Your task to perform on an android device: clear all cookies in the chrome app Image 0: 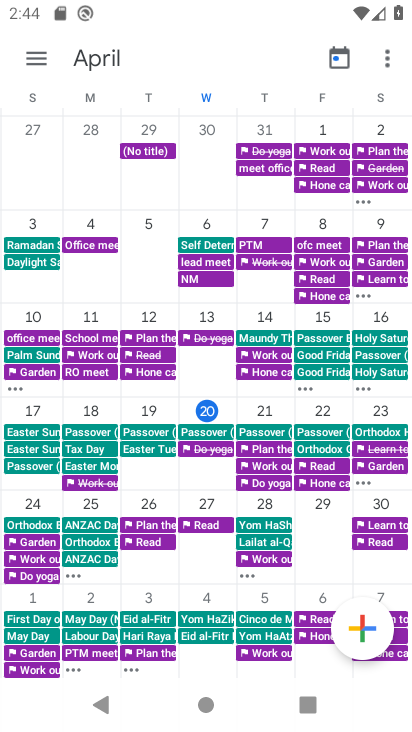
Step 0: drag from (285, 427) to (290, 174)
Your task to perform on an android device: clear all cookies in the chrome app Image 1: 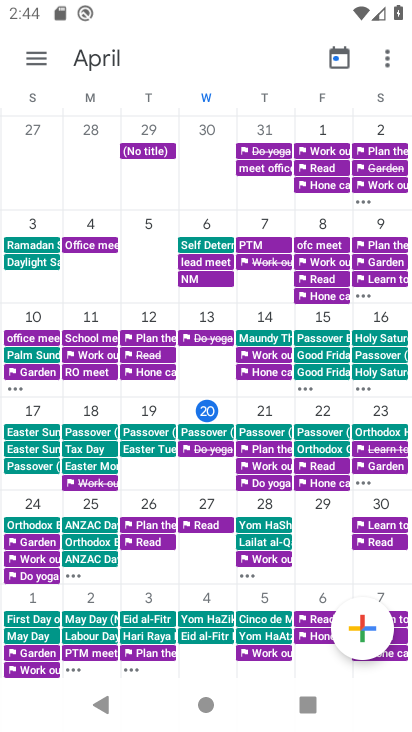
Step 1: press home button
Your task to perform on an android device: clear all cookies in the chrome app Image 2: 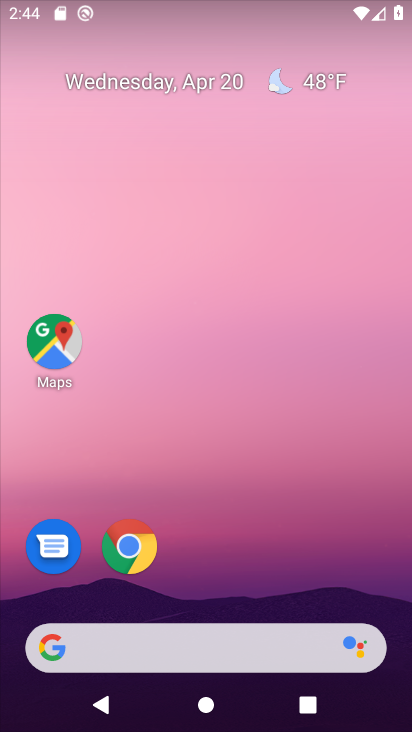
Step 2: drag from (274, 520) to (266, 302)
Your task to perform on an android device: clear all cookies in the chrome app Image 3: 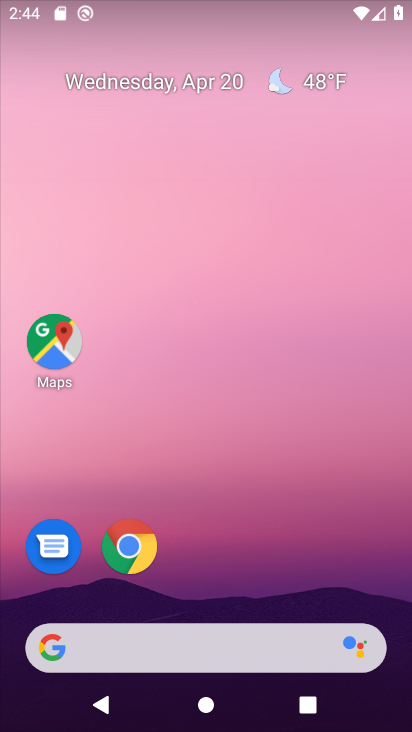
Step 3: drag from (275, 573) to (257, 208)
Your task to perform on an android device: clear all cookies in the chrome app Image 4: 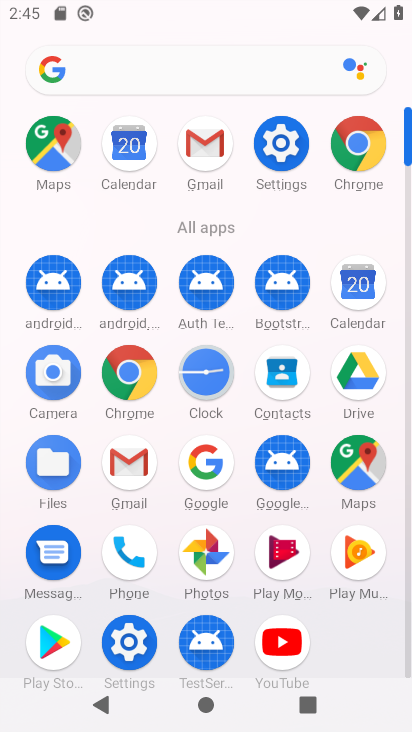
Step 4: click (361, 123)
Your task to perform on an android device: clear all cookies in the chrome app Image 5: 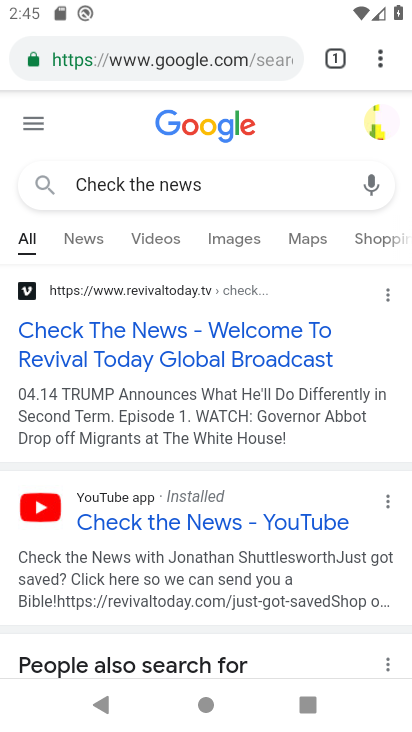
Step 5: click (380, 59)
Your task to perform on an android device: clear all cookies in the chrome app Image 6: 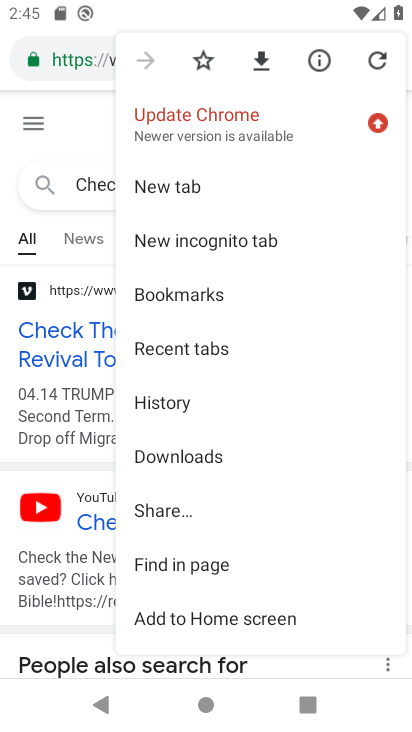
Step 6: drag from (288, 586) to (307, 217)
Your task to perform on an android device: clear all cookies in the chrome app Image 7: 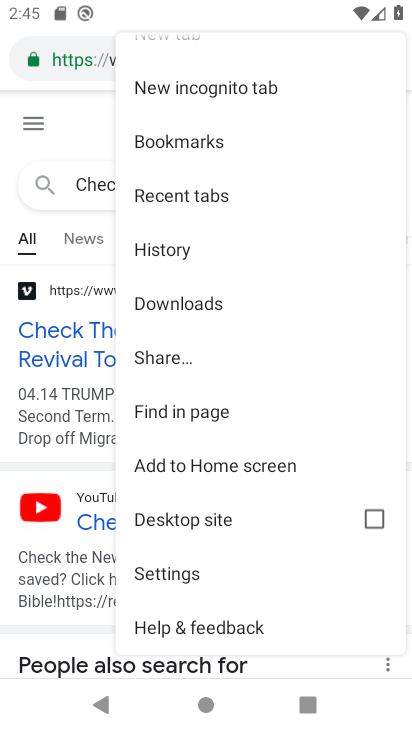
Step 7: click (255, 570)
Your task to perform on an android device: clear all cookies in the chrome app Image 8: 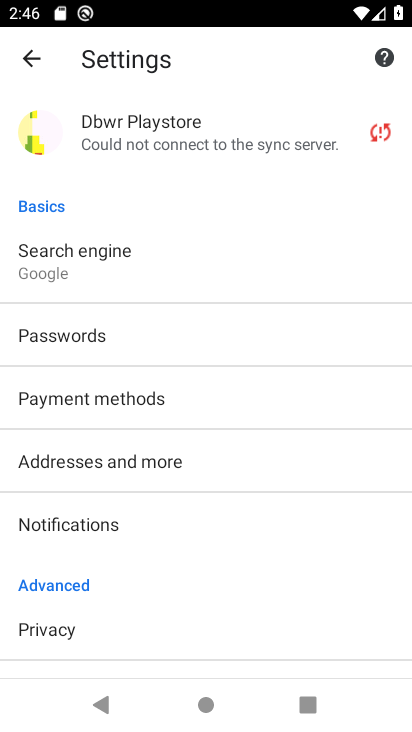
Step 8: drag from (284, 574) to (299, 251)
Your task to perform on an android device: clear all cookies in the chrome app Image 9: 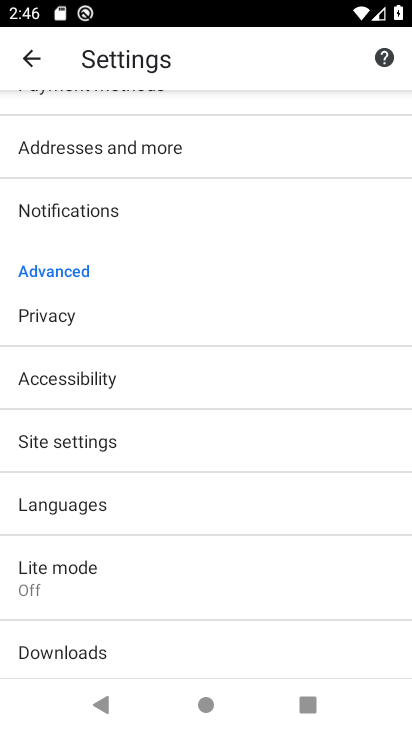
Step 9: click (140, 299)
Your task to perform on an android device: clear all cookies in the chrome app Image 10: 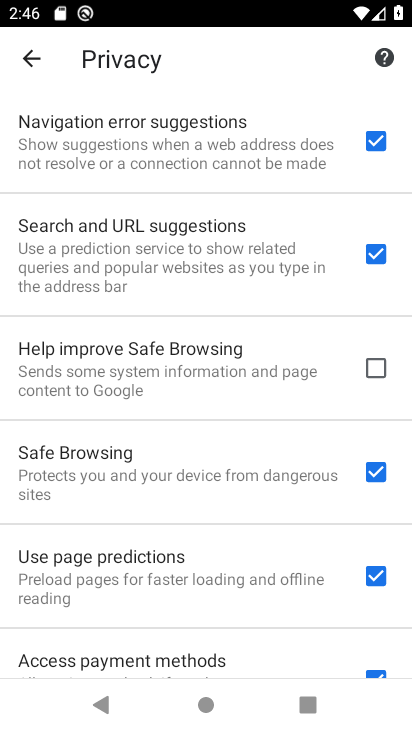
Step 10: drag from (183, 571) to (290, 157)
Your task to perform on an android device: clear all cookies in the chrome app Image 11: 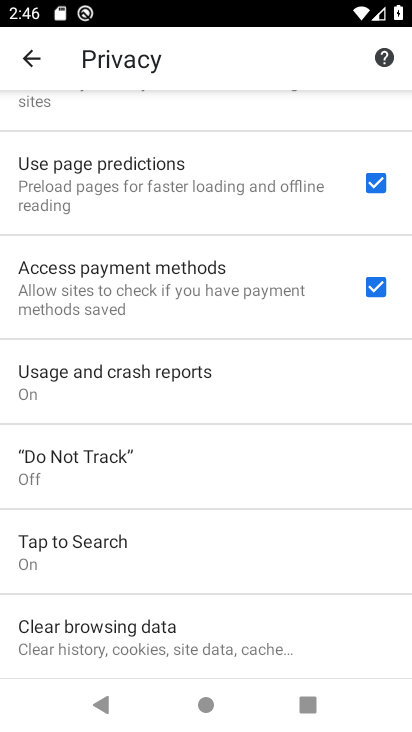
Step 11: drag from (187, 568) to (203, 255)
Your task to perform on an android device: clear all cookies in the chrome app Image 12: 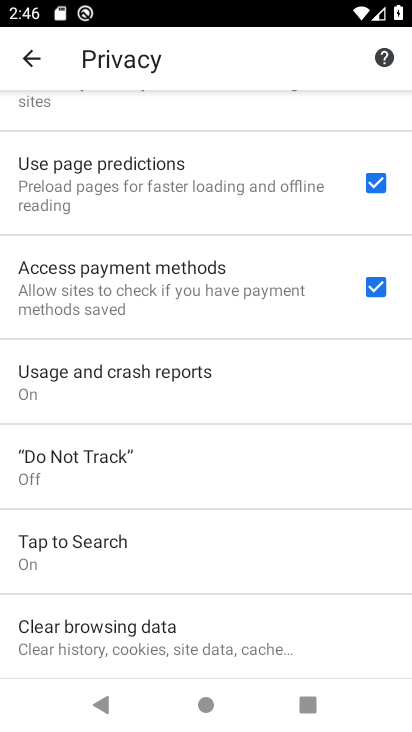
Step 12: click (153, 634)
Your task to perform on an android device: clear all cookies in the chrome app Image 13: 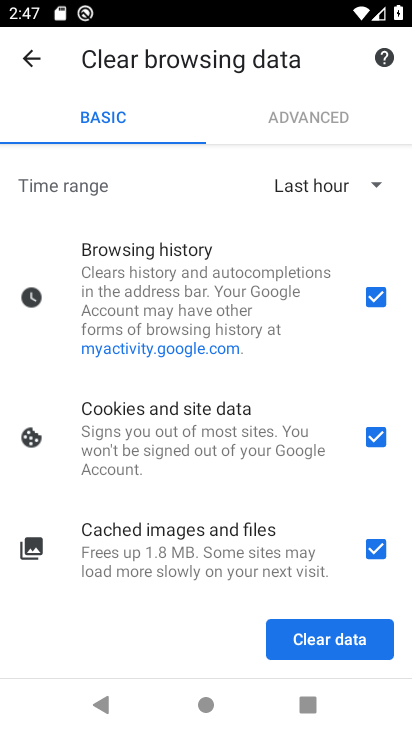
Step 13: click (358, 302)
Your task to perform on an android device: clear all cookies in the chrome app Image 14: 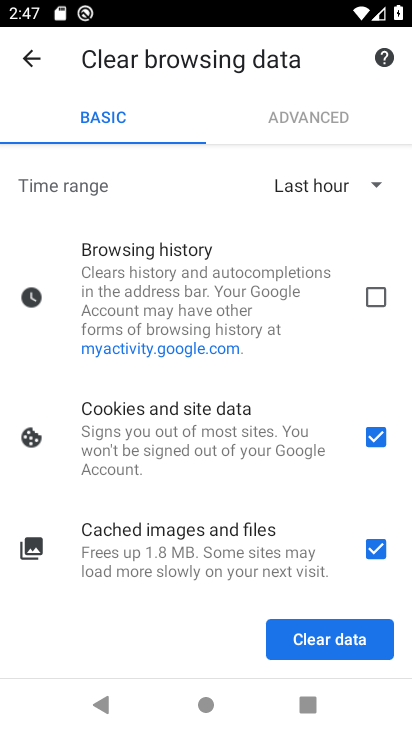
Step 14: click (370, 549)
Your task to perform on an android device: clear all cookies in the chrome app Image 15: 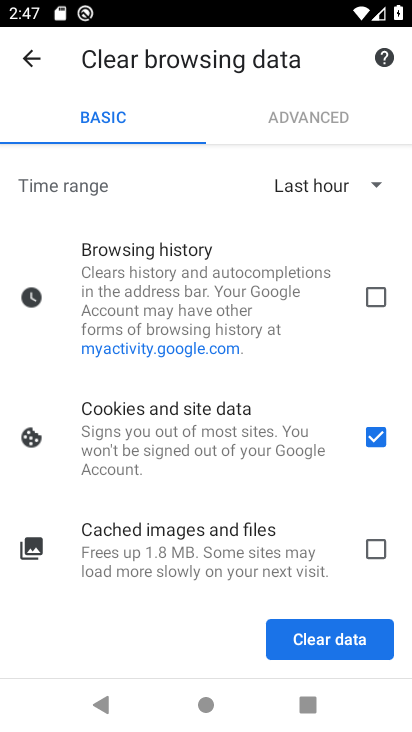
Step 15: click (367, 551)
Your task to perform on an android device: clear all cookies in the chrome app Image 16: 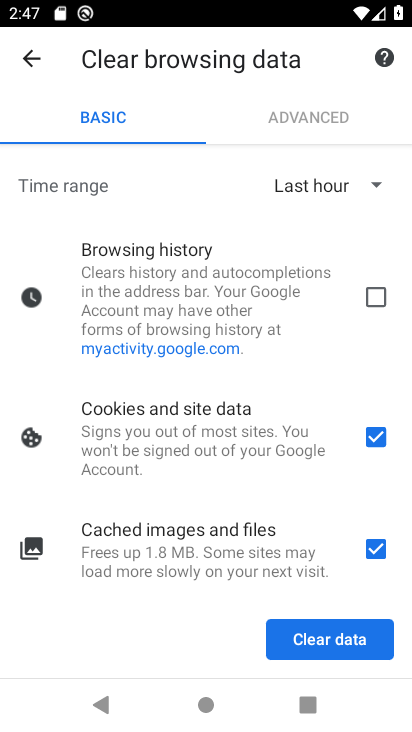
Step 16: click (321, 620)
Your task to perform on an android device: clear all cookies in the chrome app Image 17: 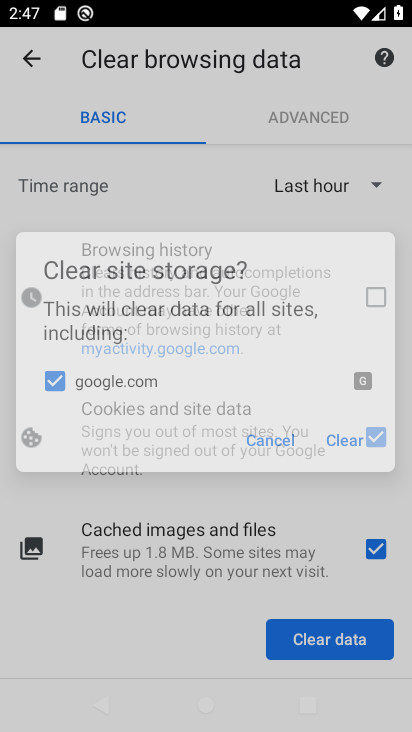
Step 17: click (315, 635)
Your task to perform on an android device: clear all cookies in the chrome app Image 18: 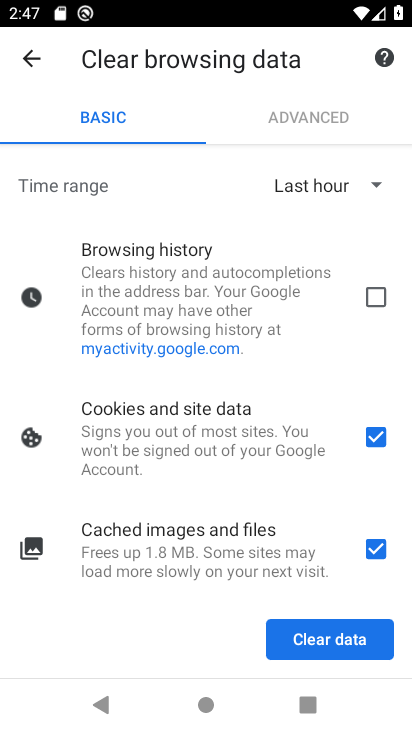
Step 18: click (353, 435)
Your task to perform on an android device: clear all cookies in the chrome app Image 19: 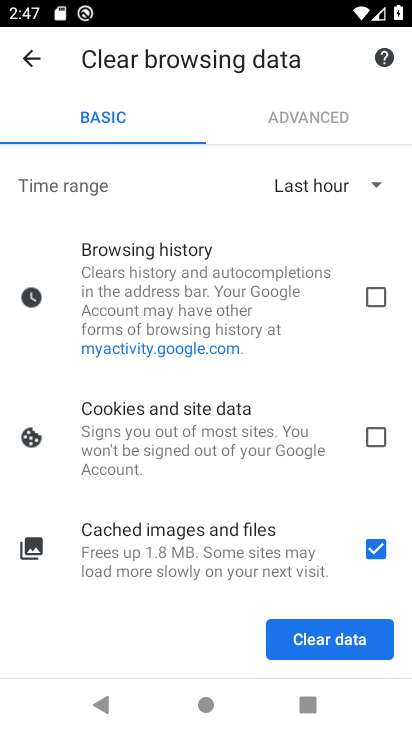
Step 19: click (354, 433)
Your task to perform on an android device: clear all cookies in the chrome app Image 20: 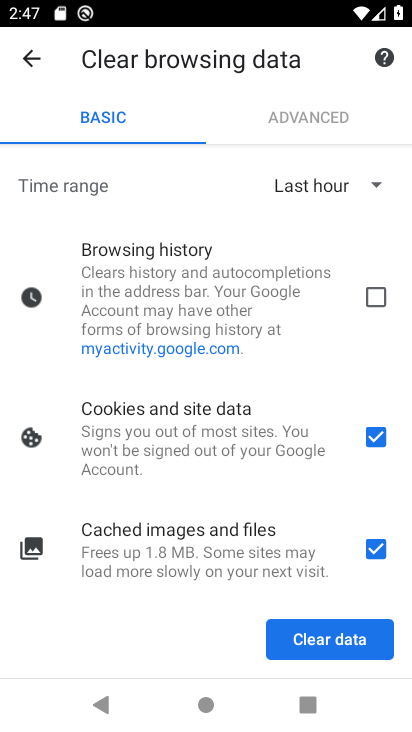
Step 20: click (322, 636)
Your task to perform on an android device: clear all cookies in the chrome app Image 21: 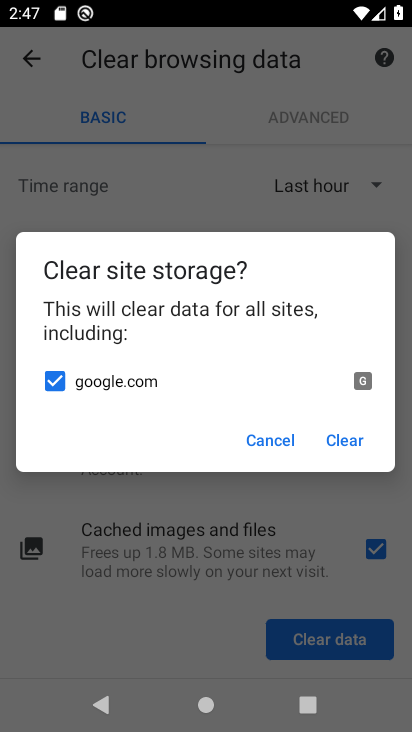
Step 21: click (333, 439)
Your task to perform on an android device: clear all cookies in the chrome app Image 22: 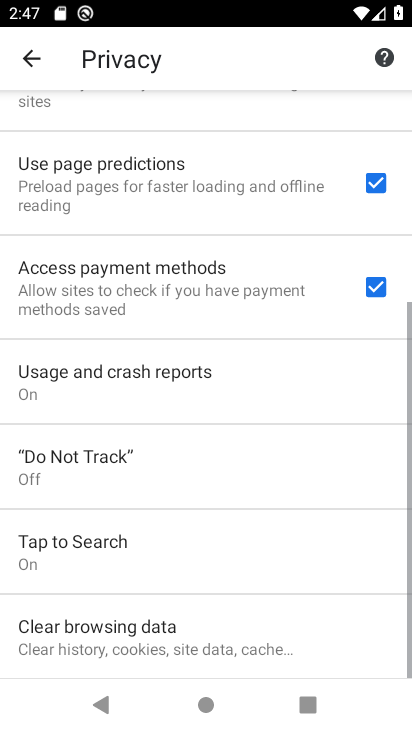
Step 22: task complete